Your task to perform on an android device: Go to calendar. Show me events next week Image 0: 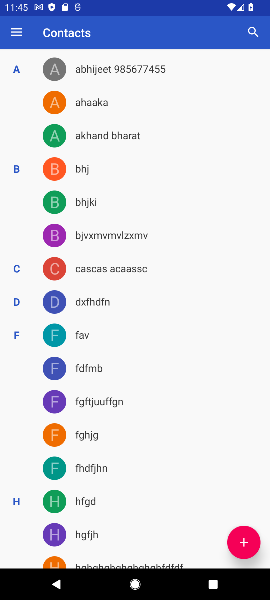
Step 0: press home button
Your task to perform on an android device: Go to calendar. Show me events next week Image 1: 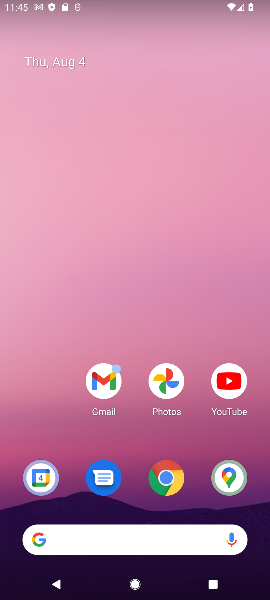
Step 1: drag from (126, 500) to (158, 80)
Your task to perform on an android device: Go to calendar. Show me events next week Image 2: 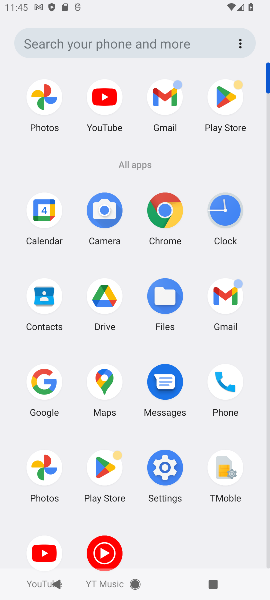
Step 2: click (45, 202)
Your task to perform on an android device: Go to calendar. Show me events next week Image 3: 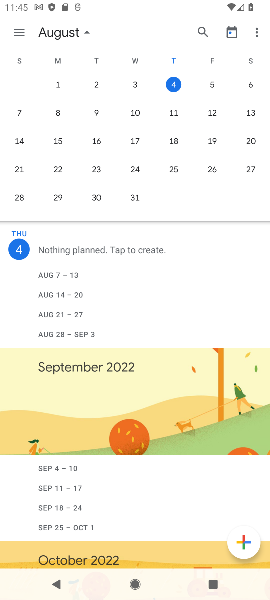
Step 3: drag from (233, 137) to (263, 137)
Your task to perform on an android device: Go to calendar. Show me events next week Image 4: 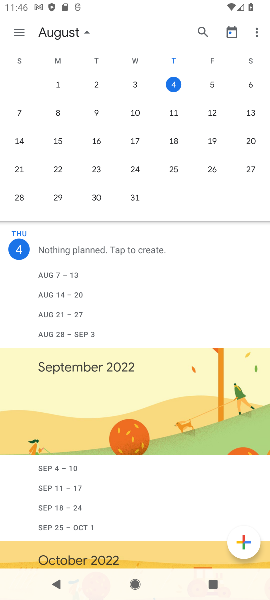
Step 4: click (175, 114)
Your task to perform on an android device: Go to calendar. Show me events next week Image 5: 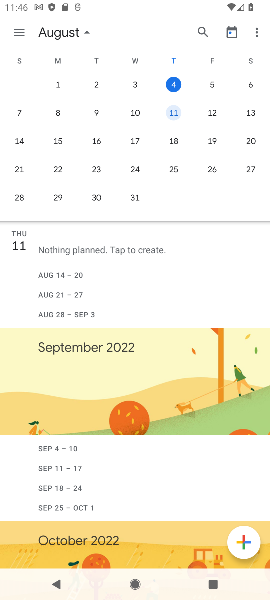
Step 5: task complete